Your task to perform on an android device: Open display settings Image 0: 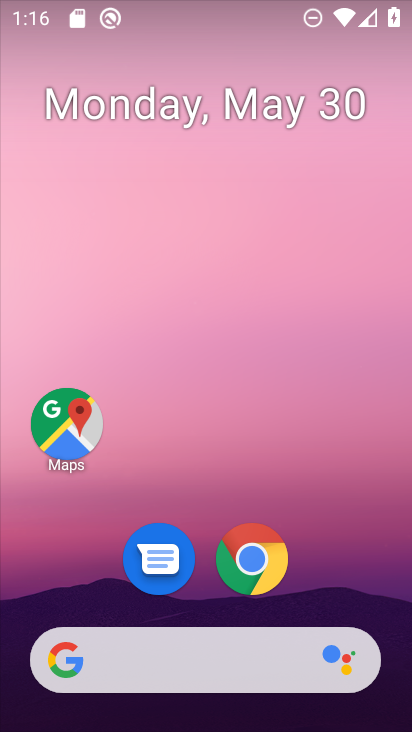
Step 0: drag from (315, 590) to (323, 2)
Your task to perform on an android device: Open display settings Image 1: 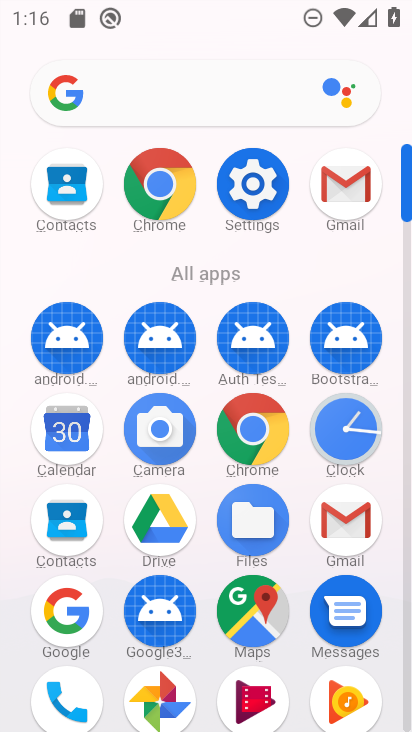
Step 1: click (248, 180)
Your task to perform on an android device: Open display settings Image 2: 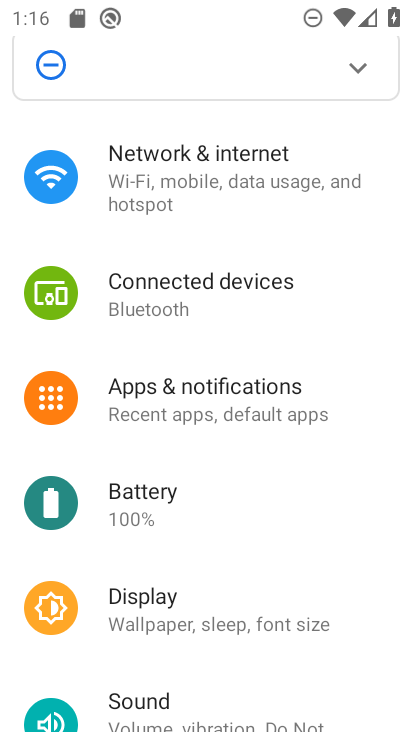
Step 2: click (157, 595)
Your task to perform on an android device: Open display settings Image 3: 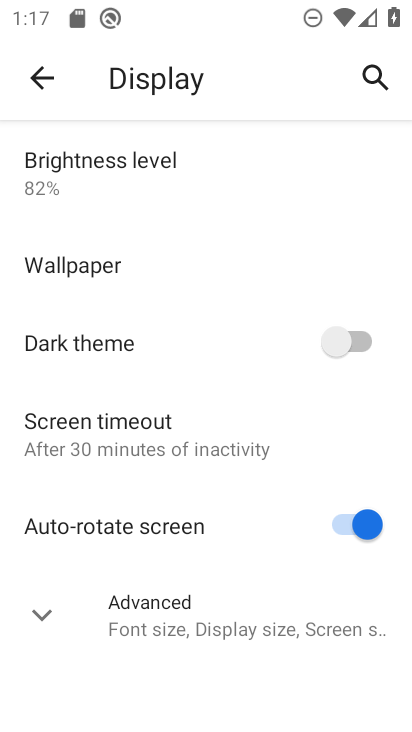
Step 3: task complete